Your task to perform on an android device: add a label to a message in the gmail app Image 0: 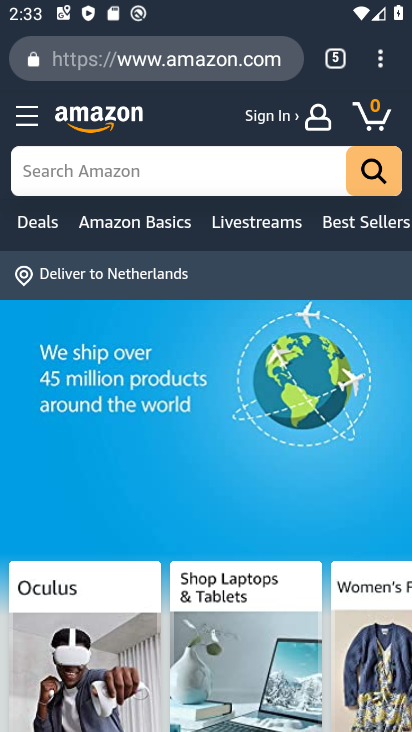
Step 0: press back button
Your task to perform on an android device: add a label to a message in the gmail app Image 1: 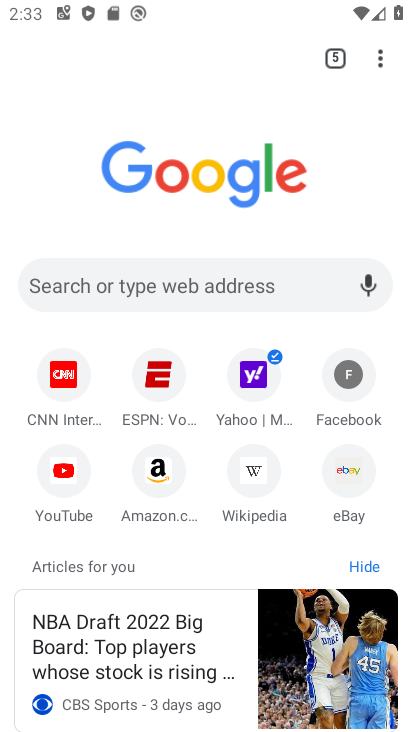
Step 1: press back button
Your task to perform on an android device: add a label to a message in the gmail app Image 2: 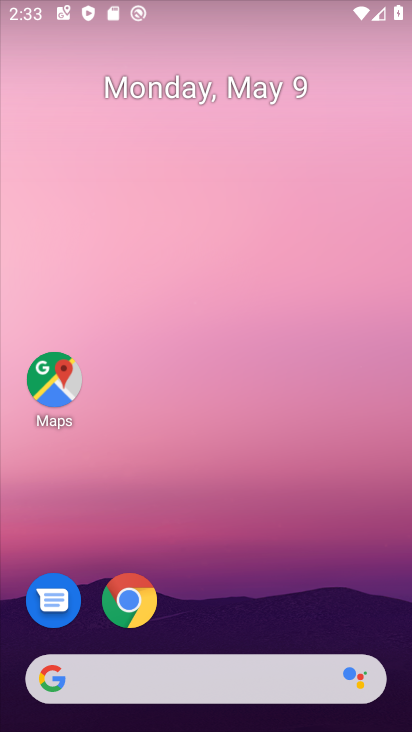
Step 2: drag from (145, 579) to (293, 47)
Your task to perform on an android device: add a label to a message in the gmail app Image 3: 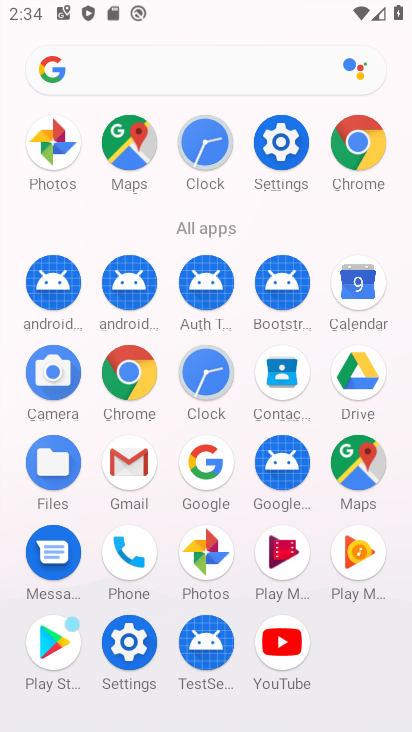
Step 3: click (136, 468)
Your task to perform on an android device: add a label to a message in the gmail app Image 4: 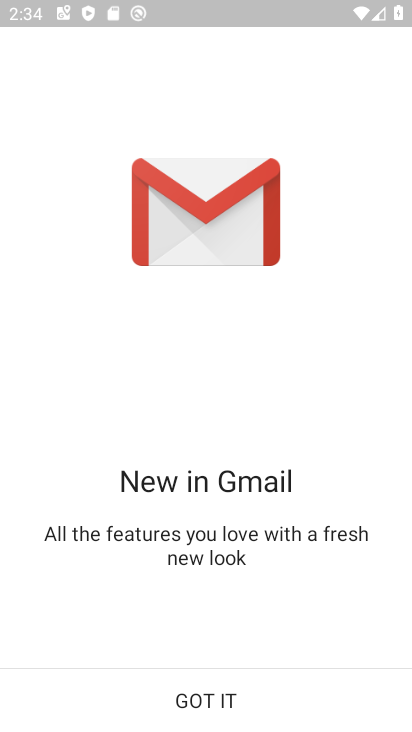
Step 4: click (205, 692)
Your task to perform on an android device: add a label to a message in the gmail app Image 5: 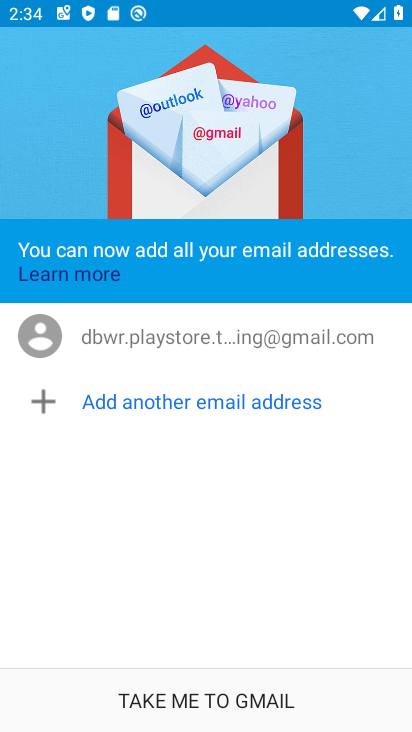
Step 5: click (179, 717)
Your task to perform on an android device: add a label to a message in the gmail app Image 6: 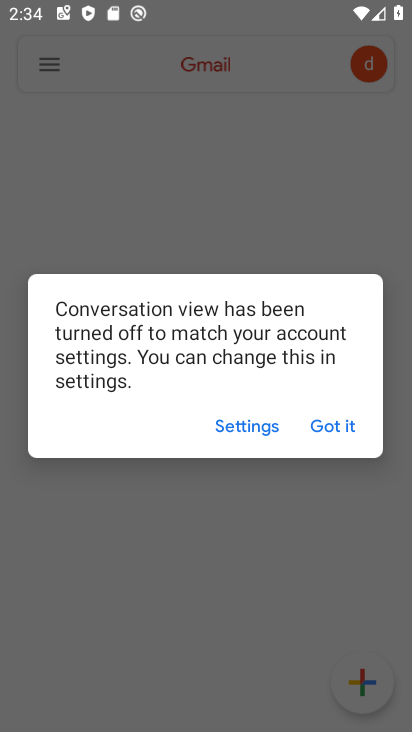
Step 6: click (327, 435)
Your task to perform on an android device: add a label to a message in the gmail app Image 7: 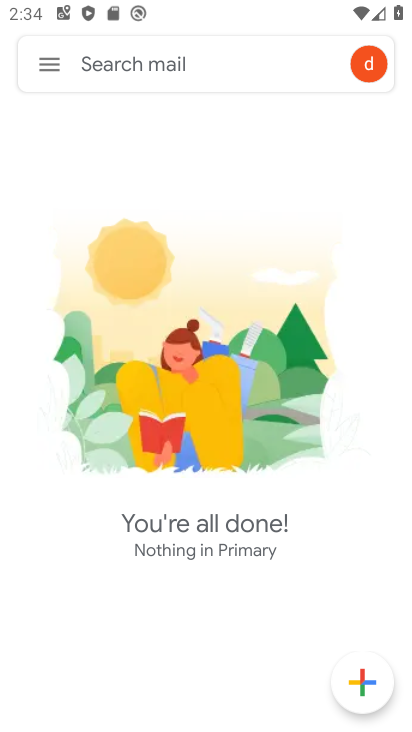
Step 7: click (49, 63)
Your task to perform on an android device: add a label to a message in the gmail app Image 8: 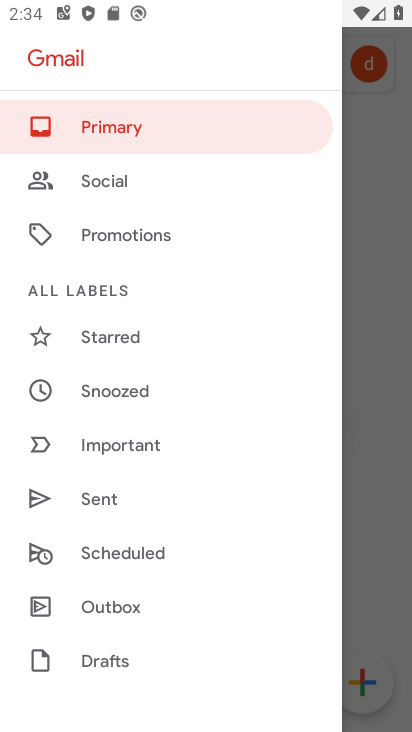
Step 8: drag from (113, 651) to (226, 216)
Your task to perform on an android device: add a label to a message in the gmail app Image 9: 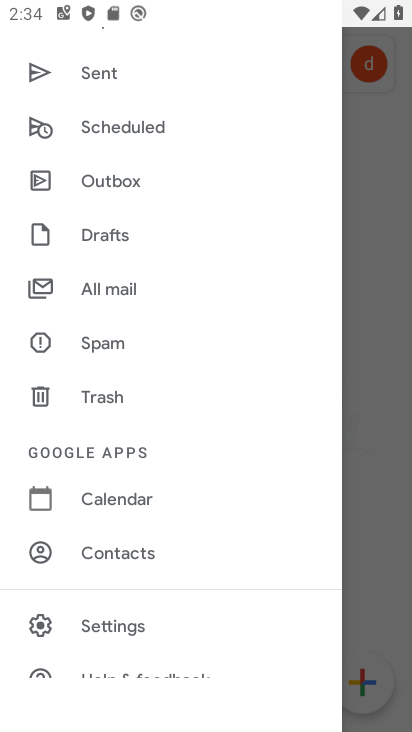
Step 9: click (105, 283)
Your task to perform on an android device: add a label to a message in the gmail app Image 10: 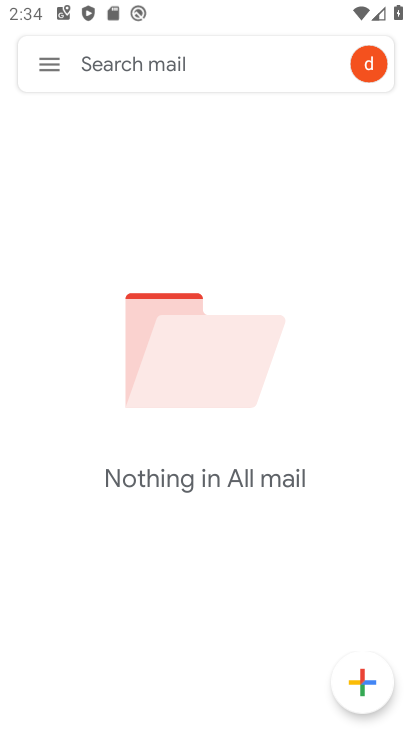
Step 10: task complete